Your task to perform on an android device: check out phone information Image 0: 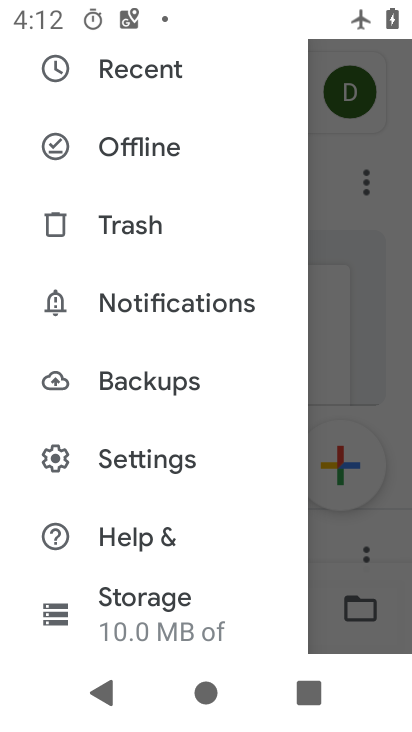
Step 0: drag from (175, 566) to (218, 160)
Your task to perform on an android device: check out phone information Image 1: 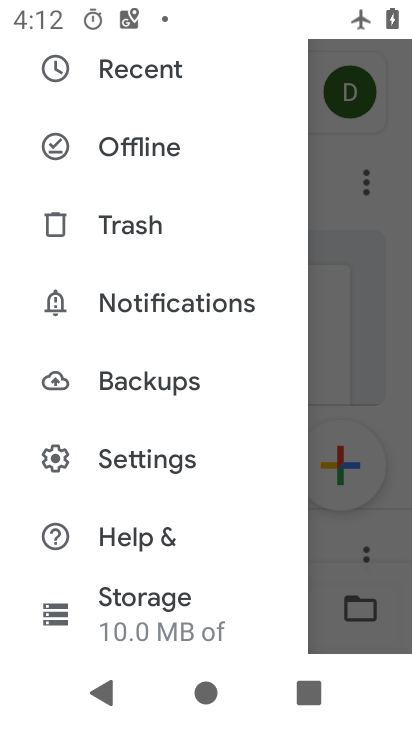
Step 1: click (134, 469)
Your task to perform on an android device: check out phone information Image 2: 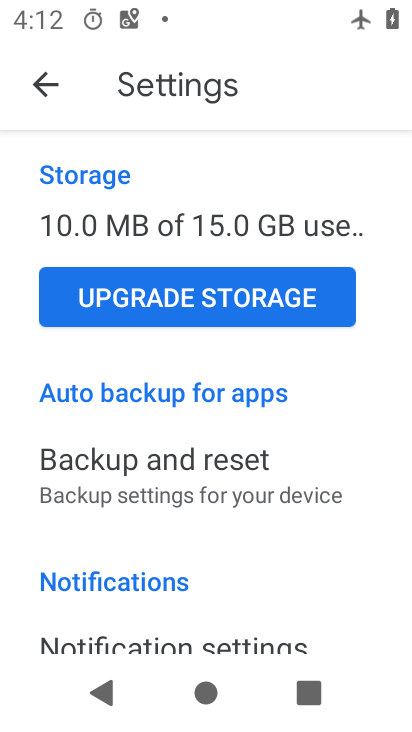
Step 2: press home button
Your task to perform on an android device: check out phone information Image 3: 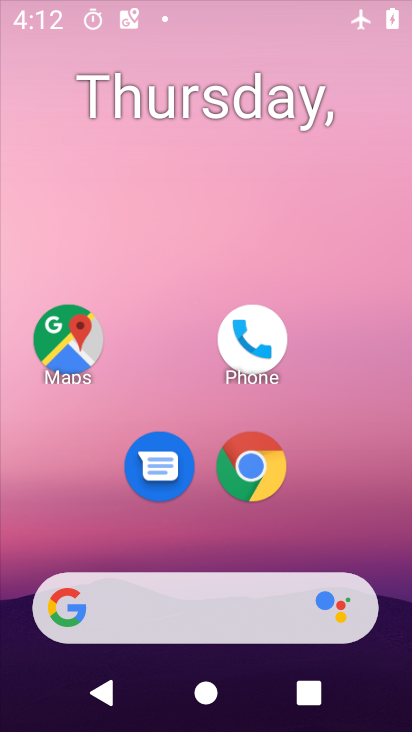
Step 3: drag from (180, 610) to (249, 140)
Your task to perform on an android device: check out phone information Image 4: 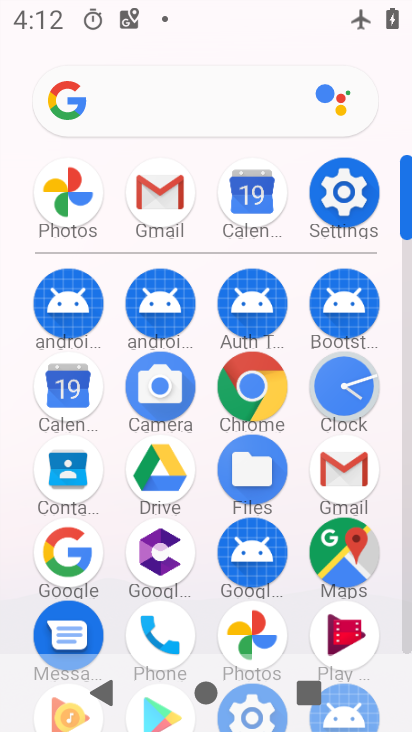
Step 4: click (350, 196)
Your task to perform on an android device: check out phone information Image 5: 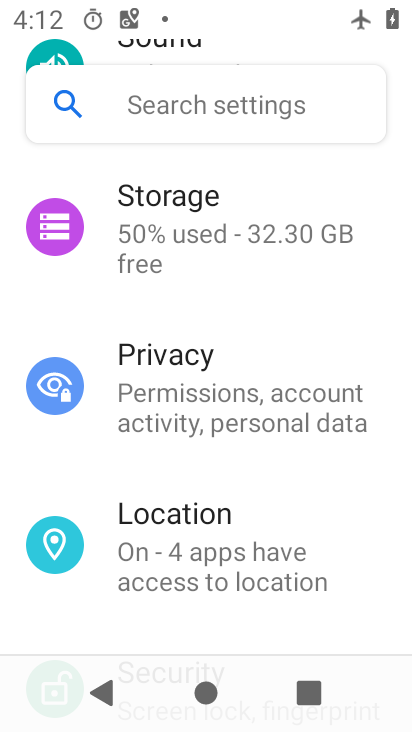
Step 5: drag from (231, 231) to (261, 692)
Your task to perform on an android device: check out phone information Image 6: 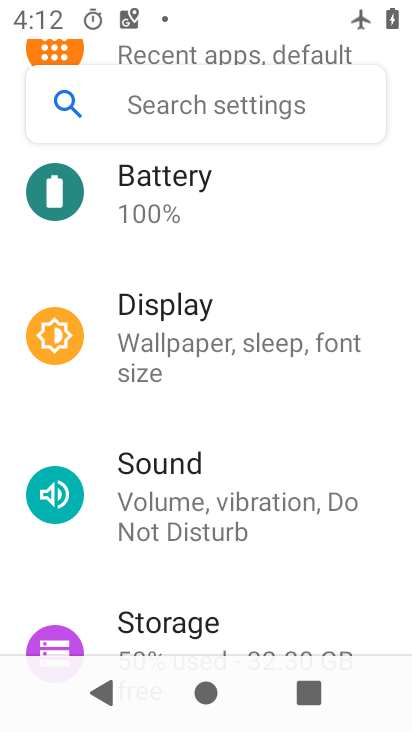
Step 6: drag from (191, 381) to (283, 689)
Your task to perform on an android device: check out phone information Image 7: 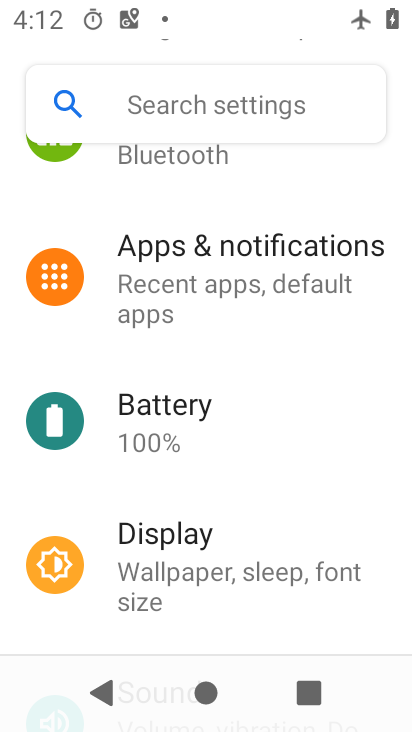
Step 7: drag from (225, 546) to (383, 29)
Your task to perform on an android device: check out phone information Image 8: 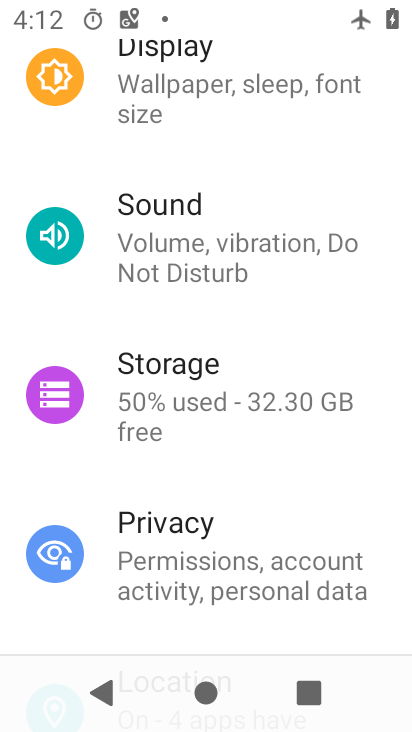
Step 8: drag from (191, 593) to (316, 71)
Your task to perform on an android device: check out phone information Image 9: 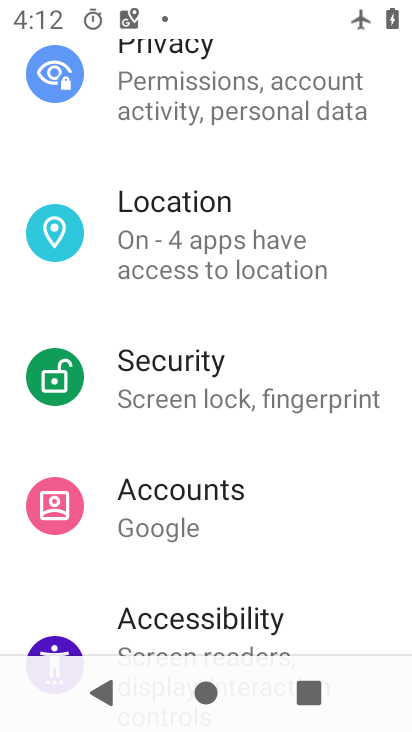
Step 9: drag from (169, 575) to (249, 78)
Your task to perform on an android device: check out phone information Image 10: 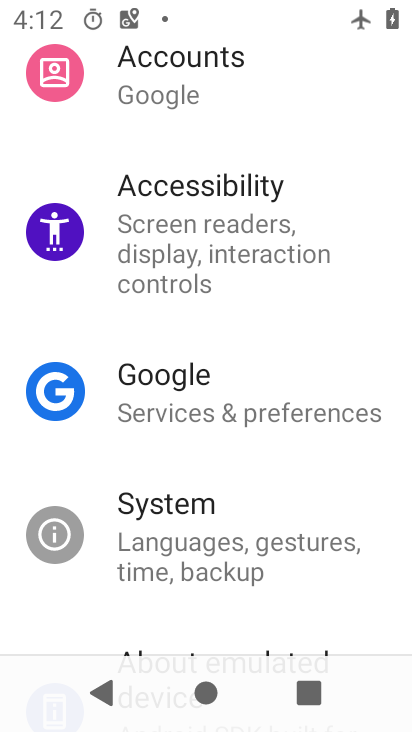
Step 10: drag from (165, 622) to (255, 1)
Your task to perform on an android device: check out phone information Image 11: 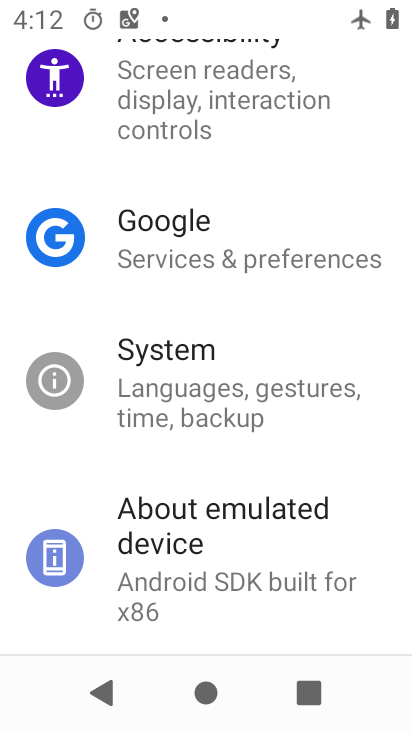
Step 11: click (194, 543)
Your task to perform on an android device: check out phone information Image 12: 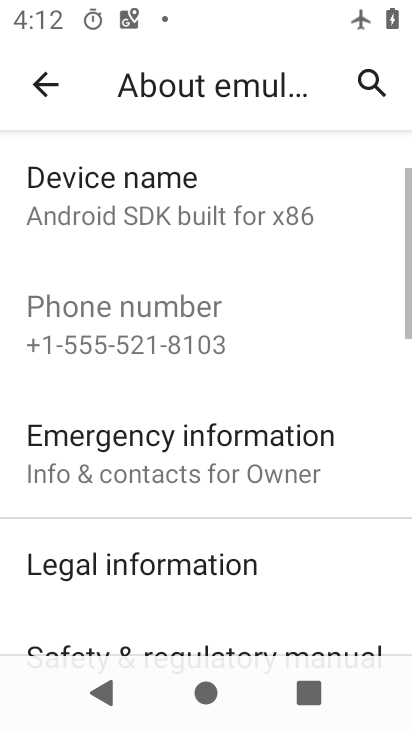
Step 12: task complete